Your task to perform on an android device: allow notifications from all sites in the chrome app Image 0: 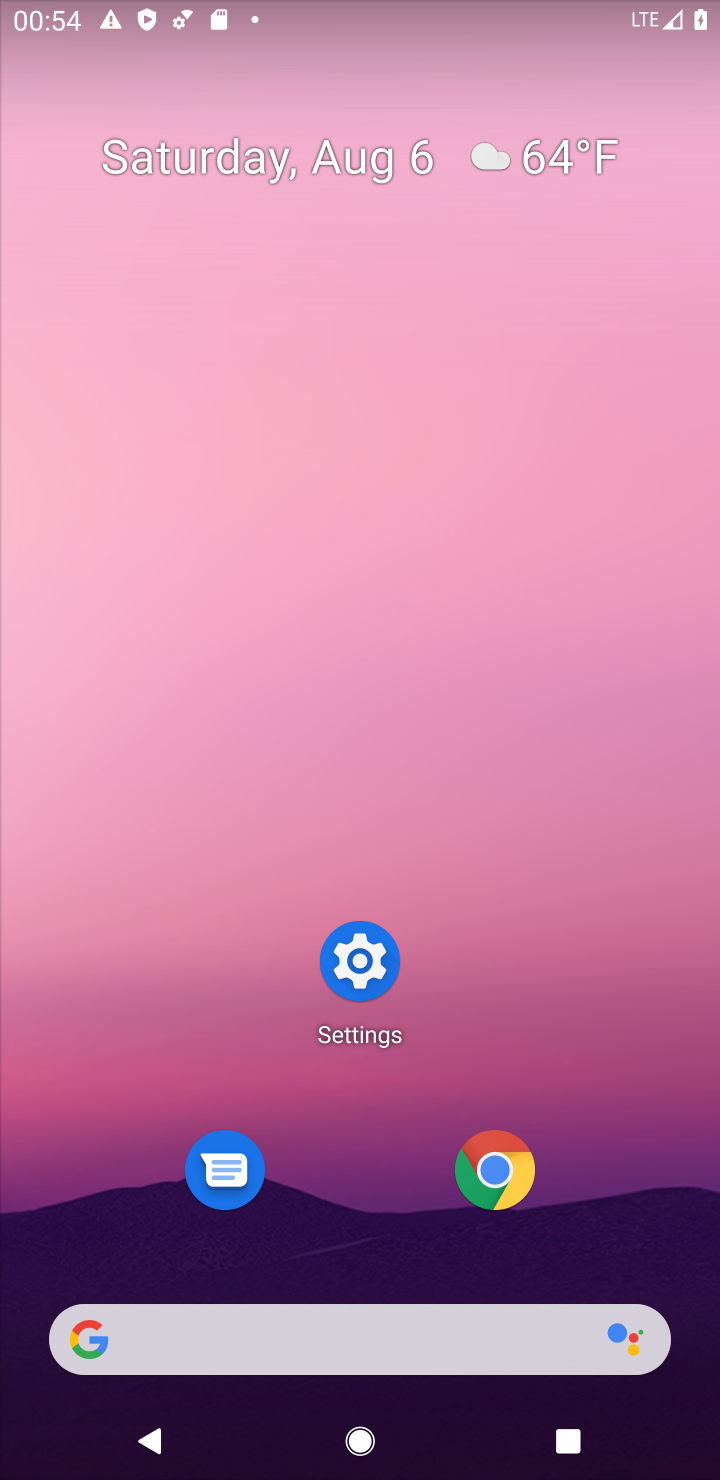
Step 0: click (491, 1176)
Your task to perform on an android device: allow notifications from all sites in the chrome app Image 1: 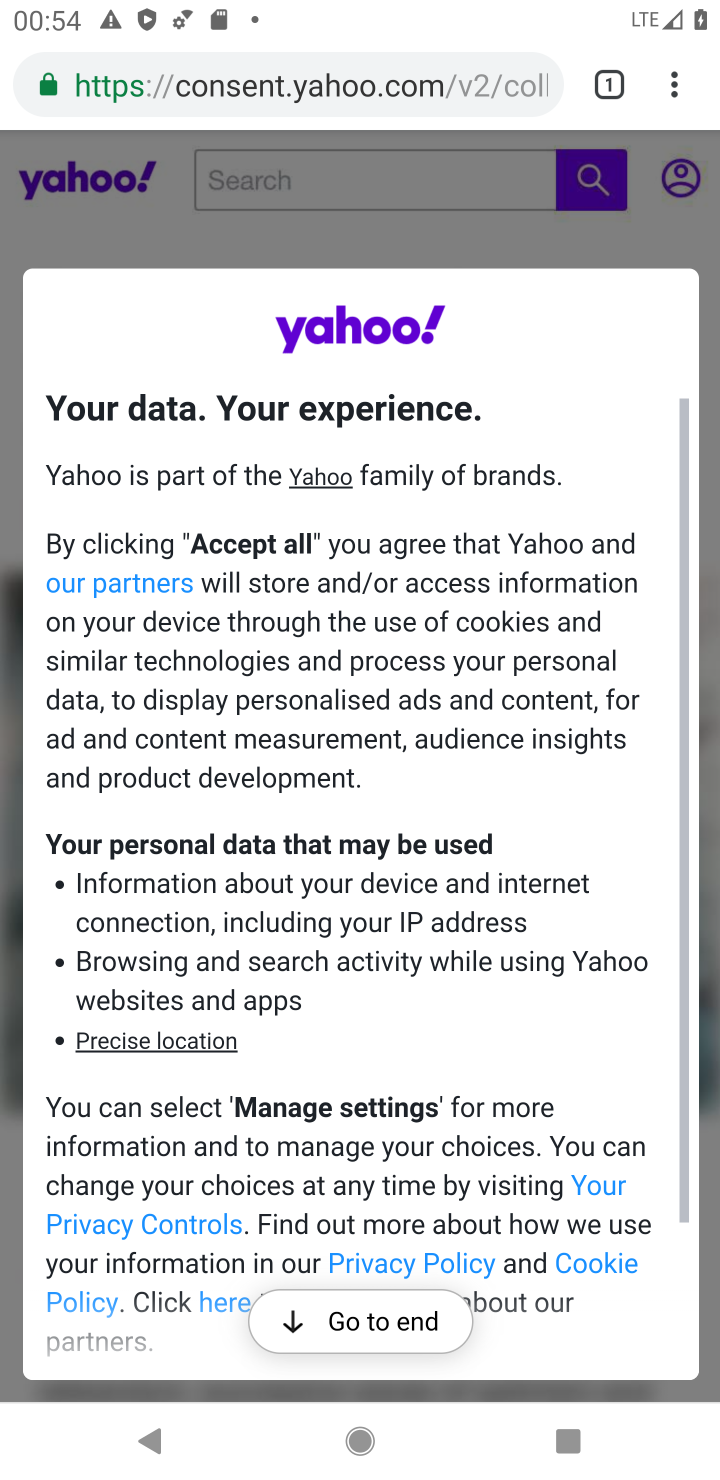
Step 1: click (679, 82)
Your task to perform on an android device: allow notifications from all sites in the chrome app Image 2: 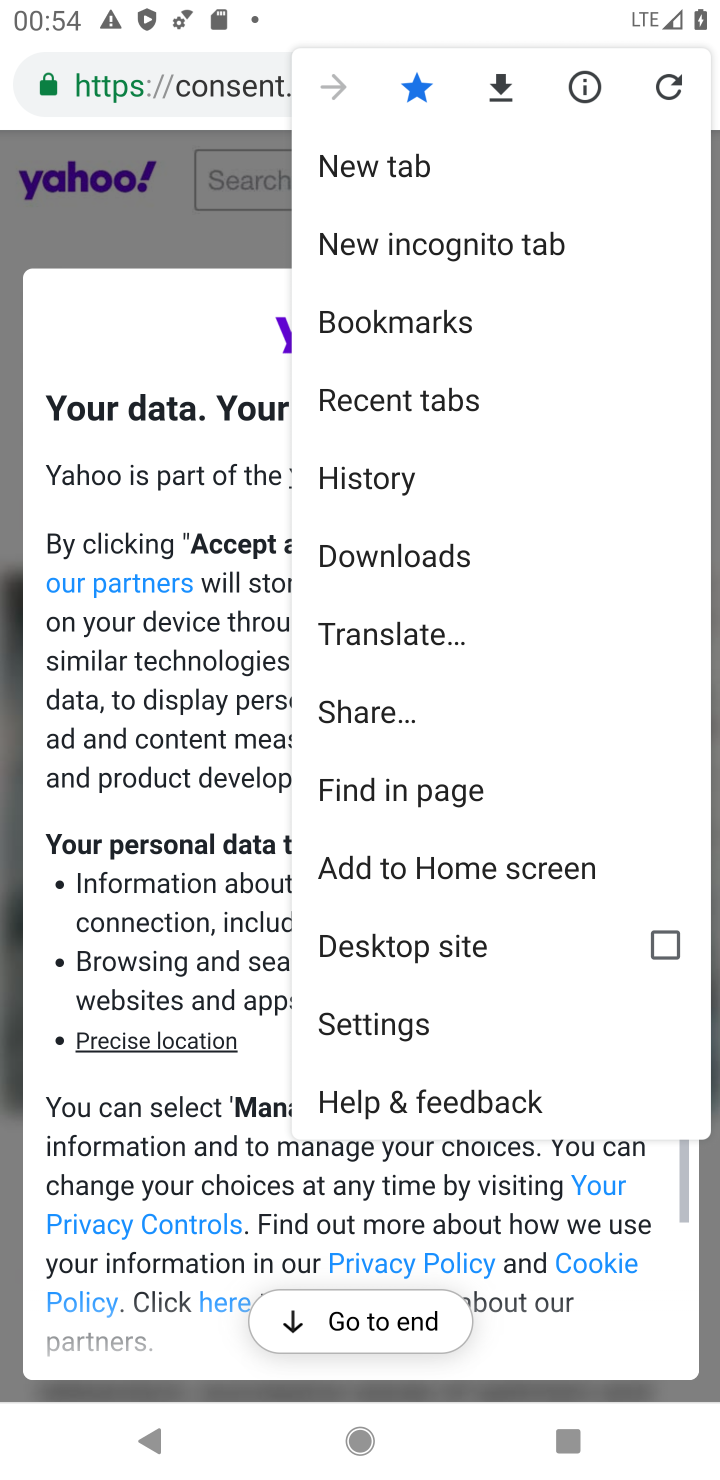
Step 2: click (386, 1022)
Your task to perform on an android device: allow notifications from all sites in the chrome app Image 3: 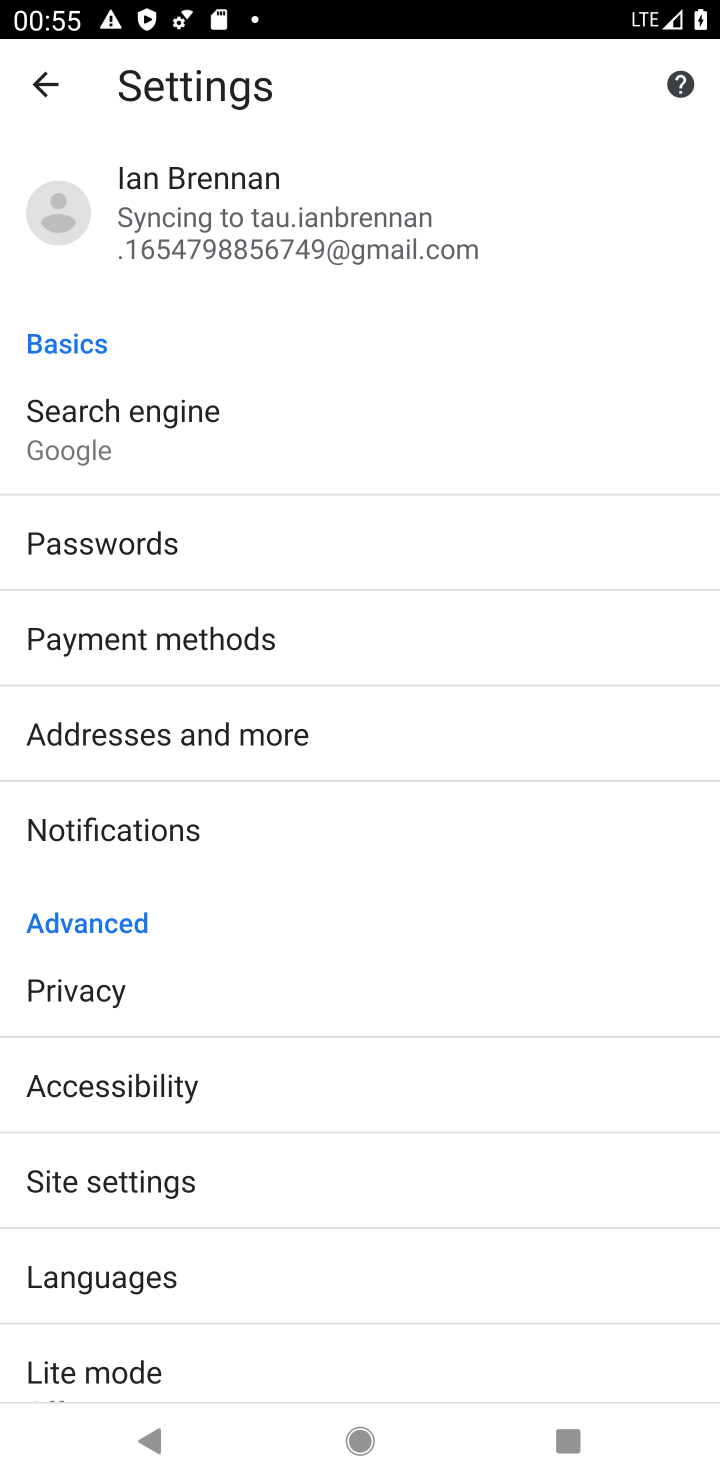
Step 3: click (113, 820)
Your task to perform on an android device: allow notifications from all sites in the chrome app Image 4: 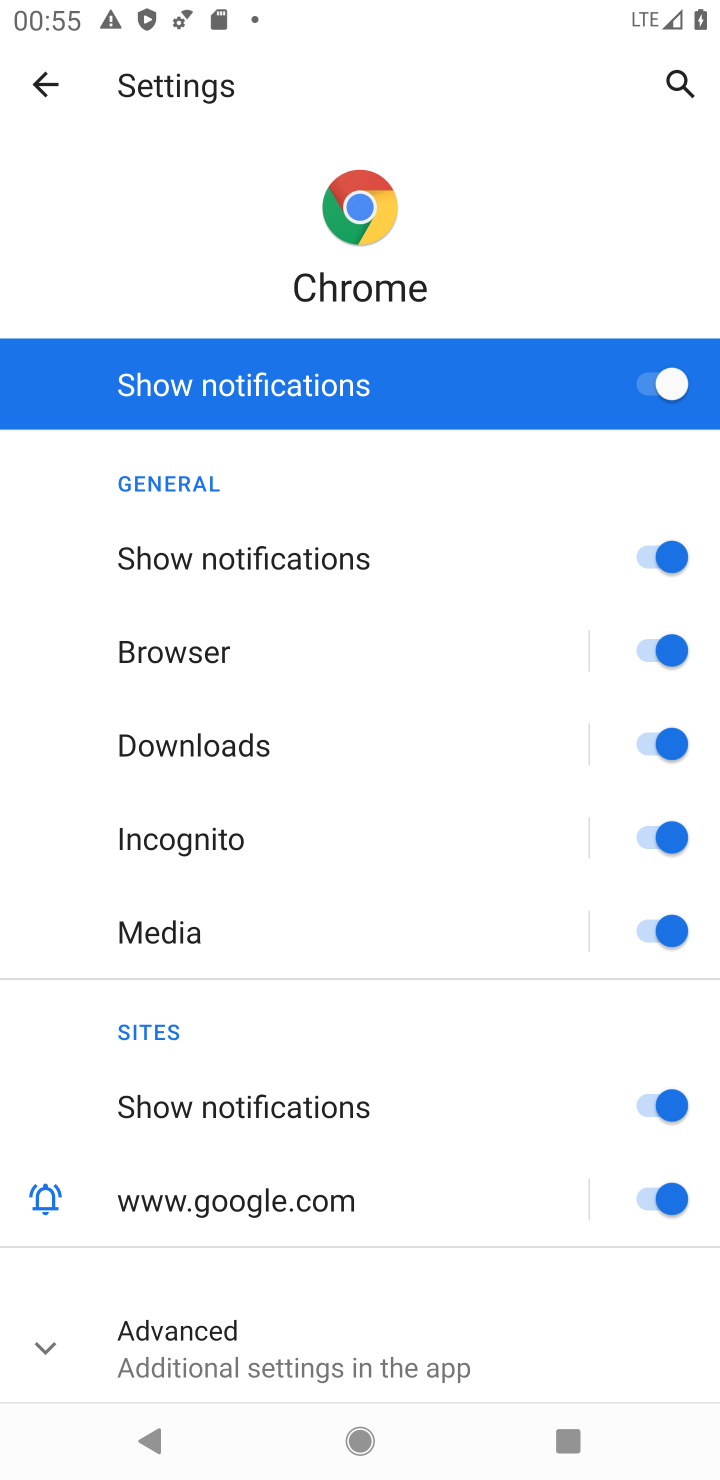
Step 4: drag from (24, 990) to (62, 780)
Your task to perform on an android device: allow notifications from all sites in the chrome app Image 5: 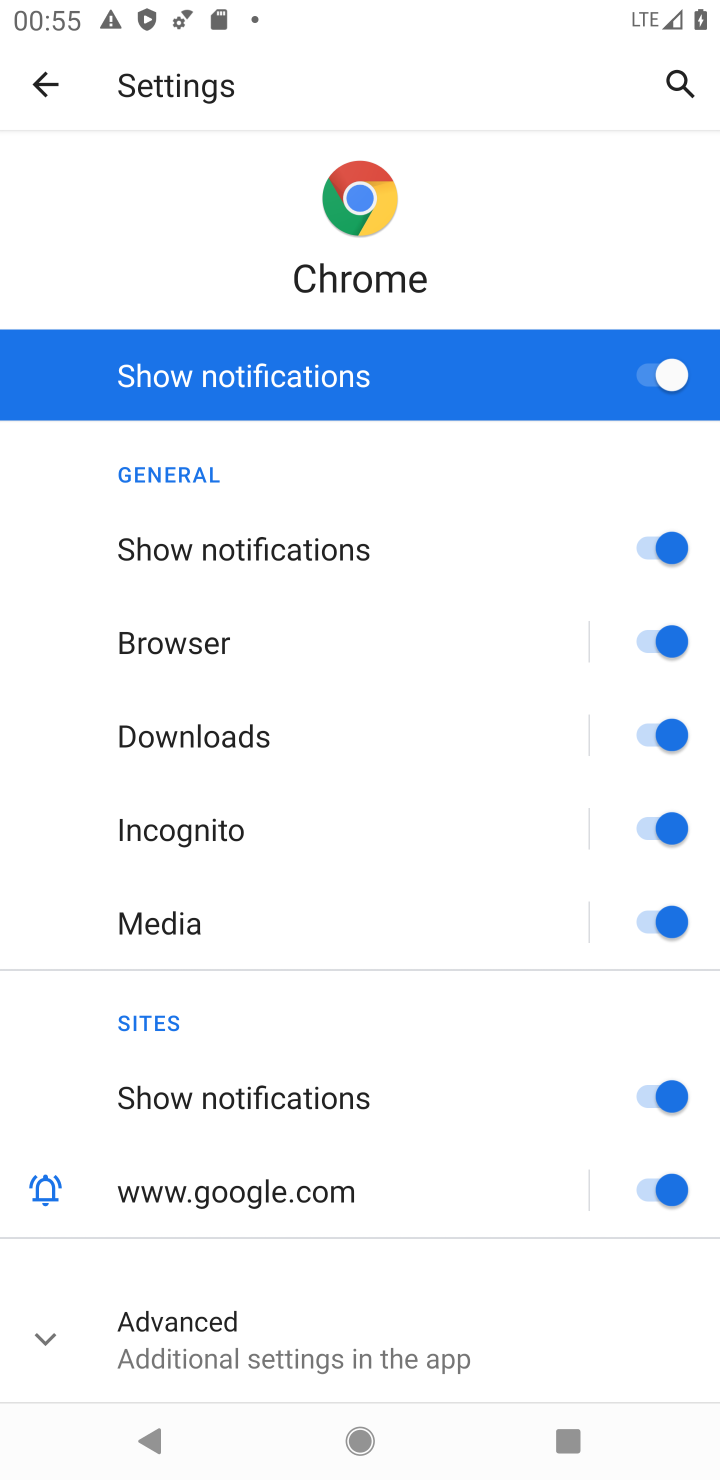
Step 5: click (156, 1315)
Your task to perform on an android device: allow notifications from all sites in the chrome app Image 6: 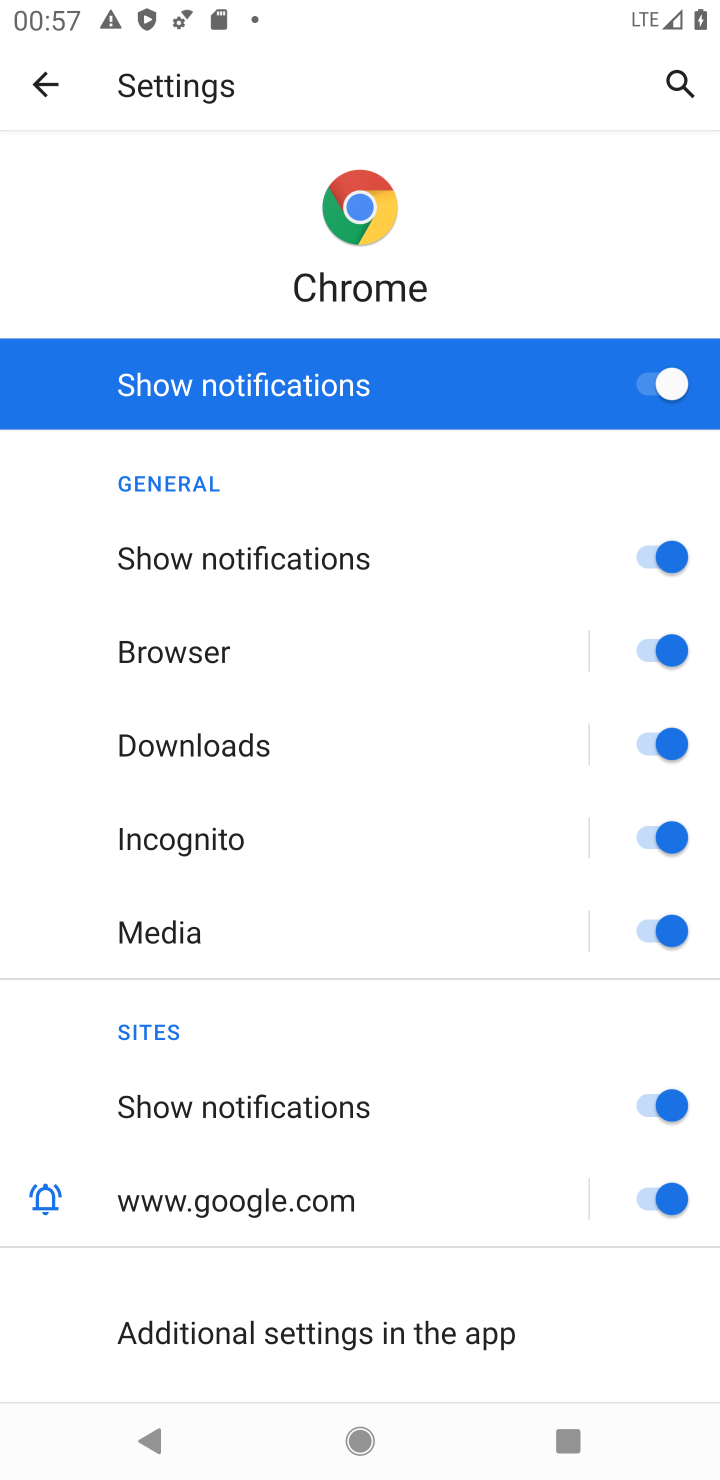
Step 6: task complete